Your task to perform on an android device: check google app version Image 0: 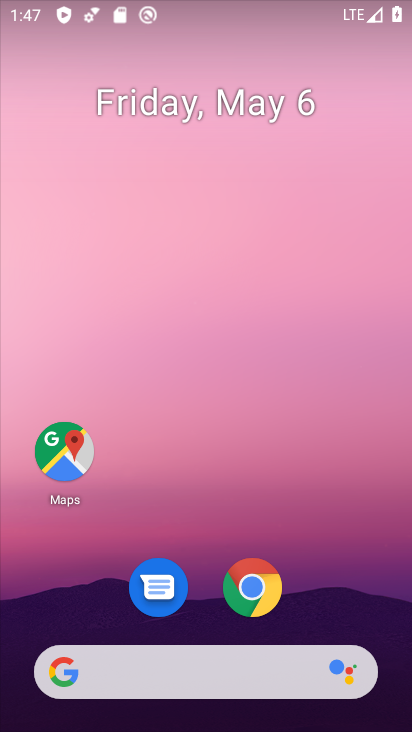
Step 0: drag from (326, 596) to (281, 159)
Your task to perform on an android device: check google app version Image 1: 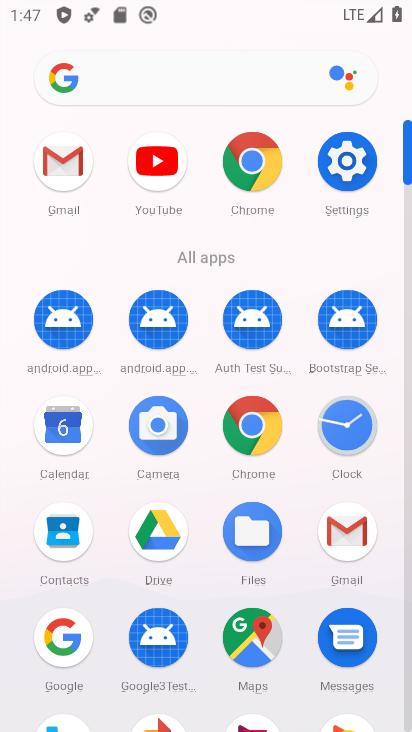
Step 1: click (63, 643)
Your task to perform on an android device: check google app version Image 2: 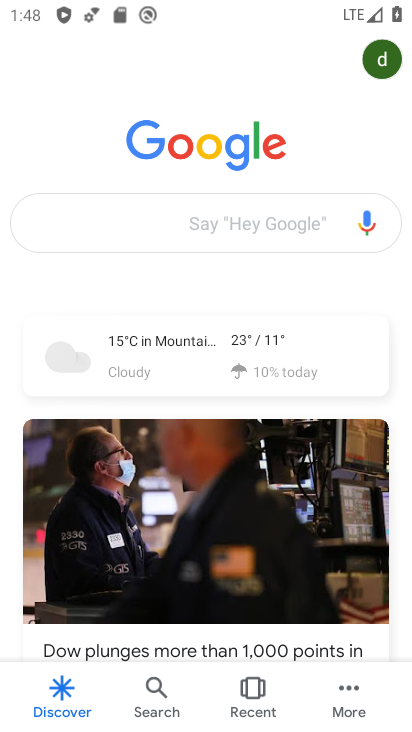
Step 2: click (359, 712)
Your task to perform on an android device: check google app version Image 3: 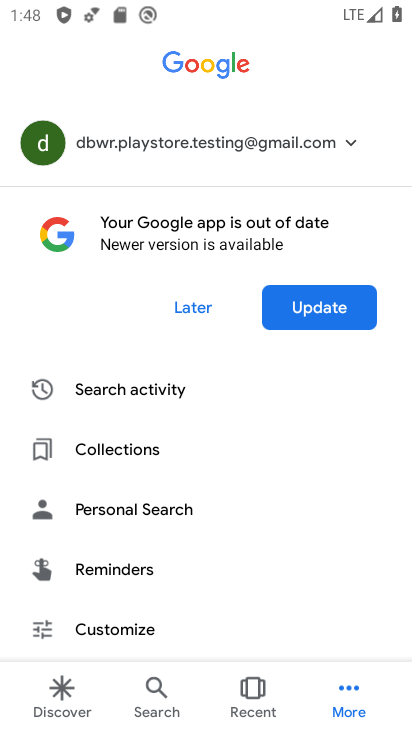
Step 3: drag from (211, 578) to (200, 175)
Your task to perform on an android device: check google app version Image 4: 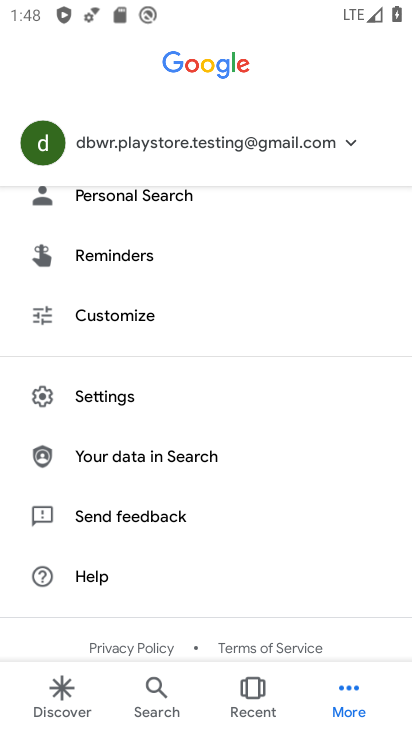
Step 4: drag from (143, 286) to (181, 165)
Your task to perform on an android device: check google app version Image 5: 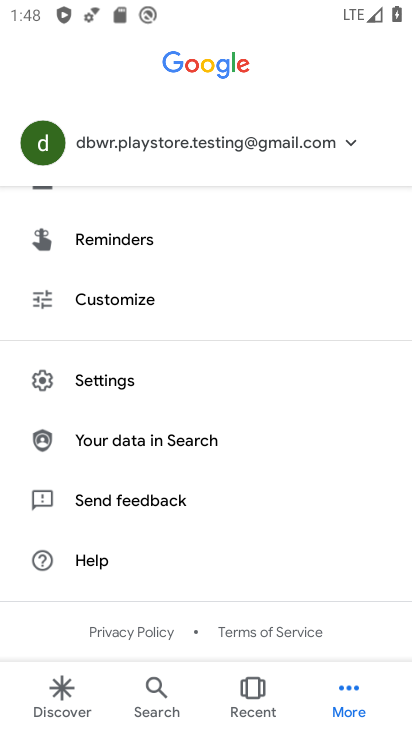
Step 5: click (95, 377)
Your task to perform on an android device: check google app version Image 6: 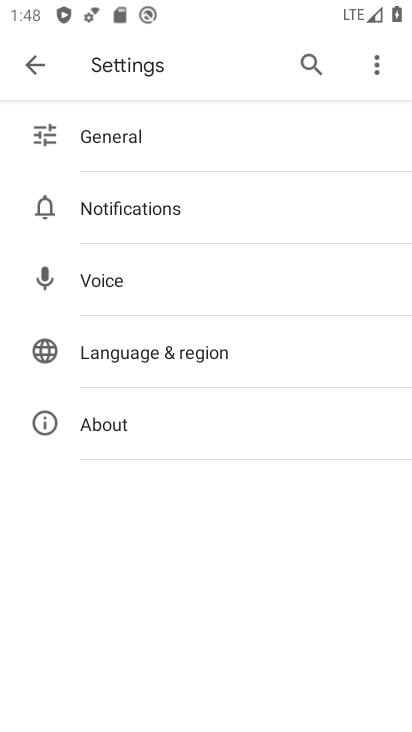
Step 6: click (90, 429)
Your task to perform on an android device: check google app version Image 7: 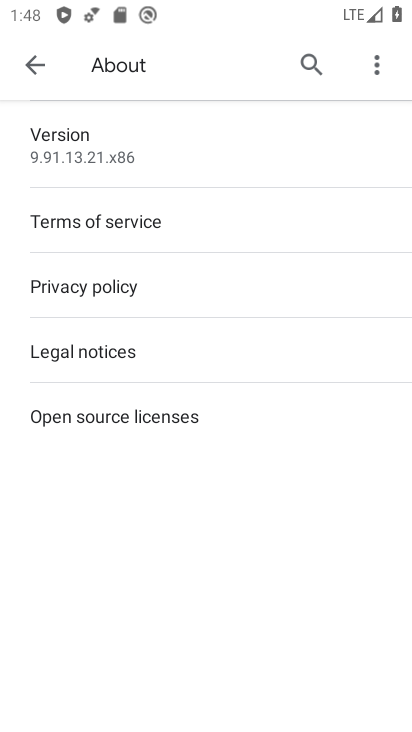
Step 7: click (88, 133)
Your task to perform on an android device: check google app version Image 8: 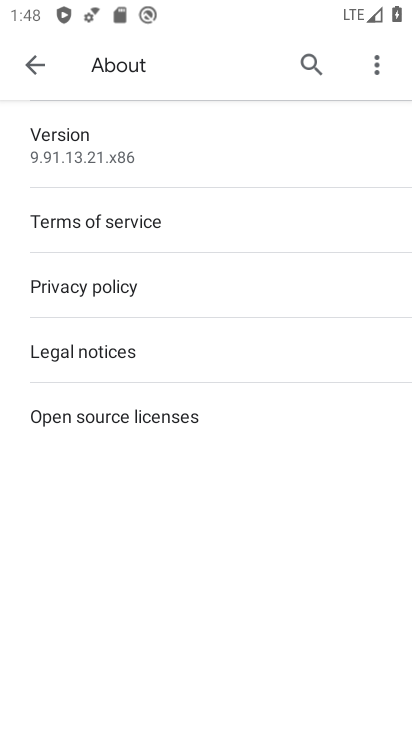
Step 8: task complete